Your task to perform on an android device: see sites visited before in the chrome app Image 0: 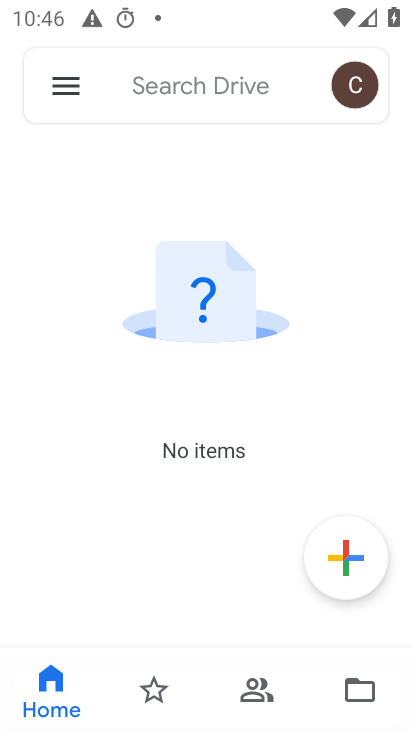
Step 0: press home button
Your task to perform on an android device: see sites visited before in the chrome app Image 1: 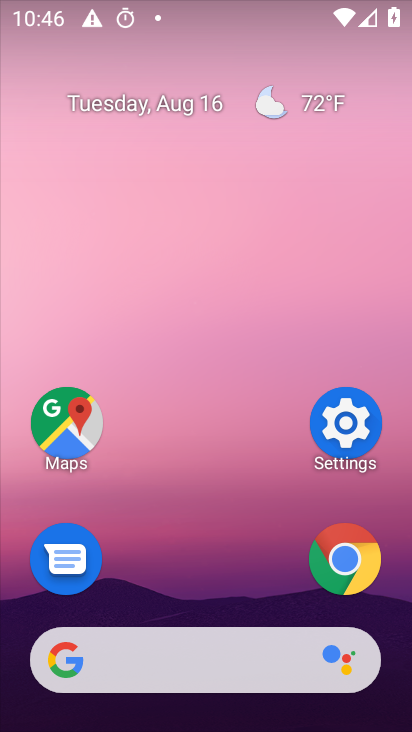
Step 1: click (345, 552)
Your task to perform on an android device: see sites visited before in the chrome app Image 2: 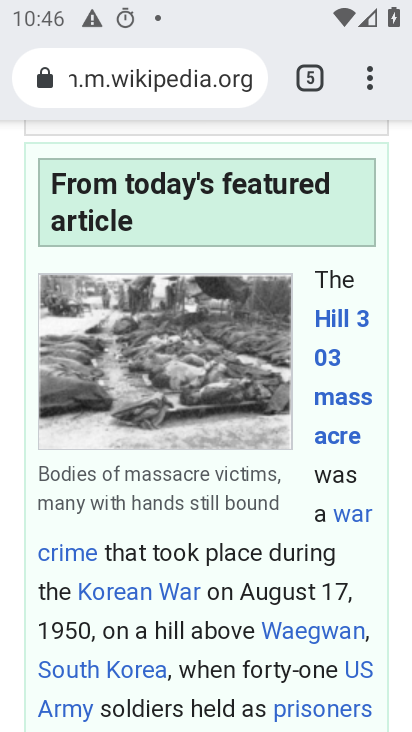
Step 2: task complete